Your task to perform on an android device: Go to settings Image 0: 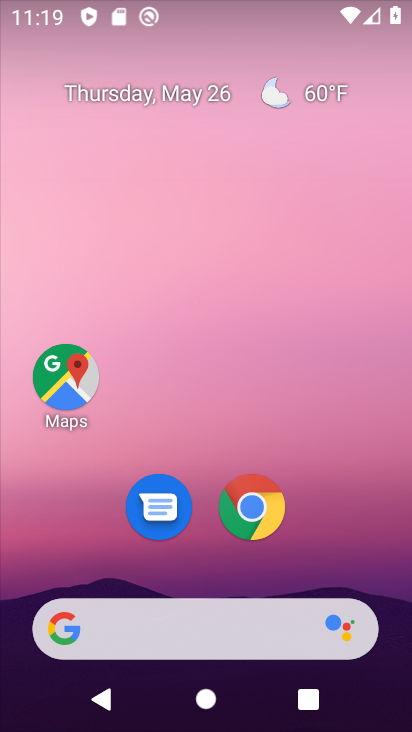
Step 0: drag from (369, 523) to (356, 120)
Your task to perform on an android device: Go to settings Image 1: 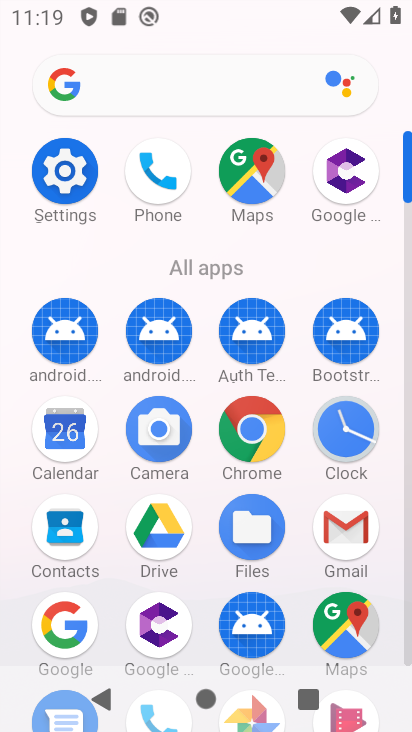
Step 1: click (63, 185)
Your task to perform on an android device: Go to settings Image 2: 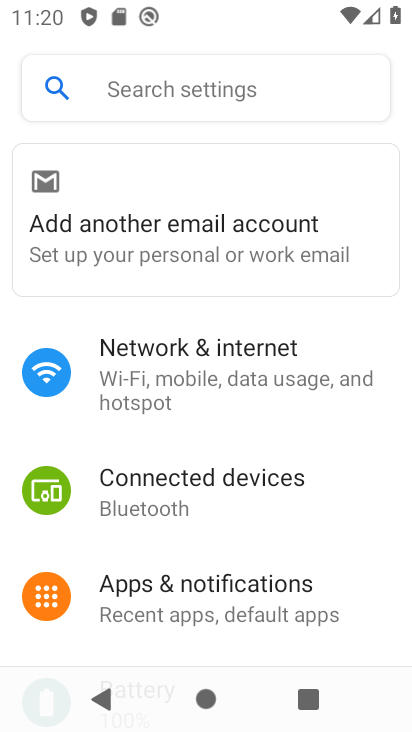
Step 2: task complete